Your task to perform on an android device: open chrome and create a bookmark for the current page Image 0: 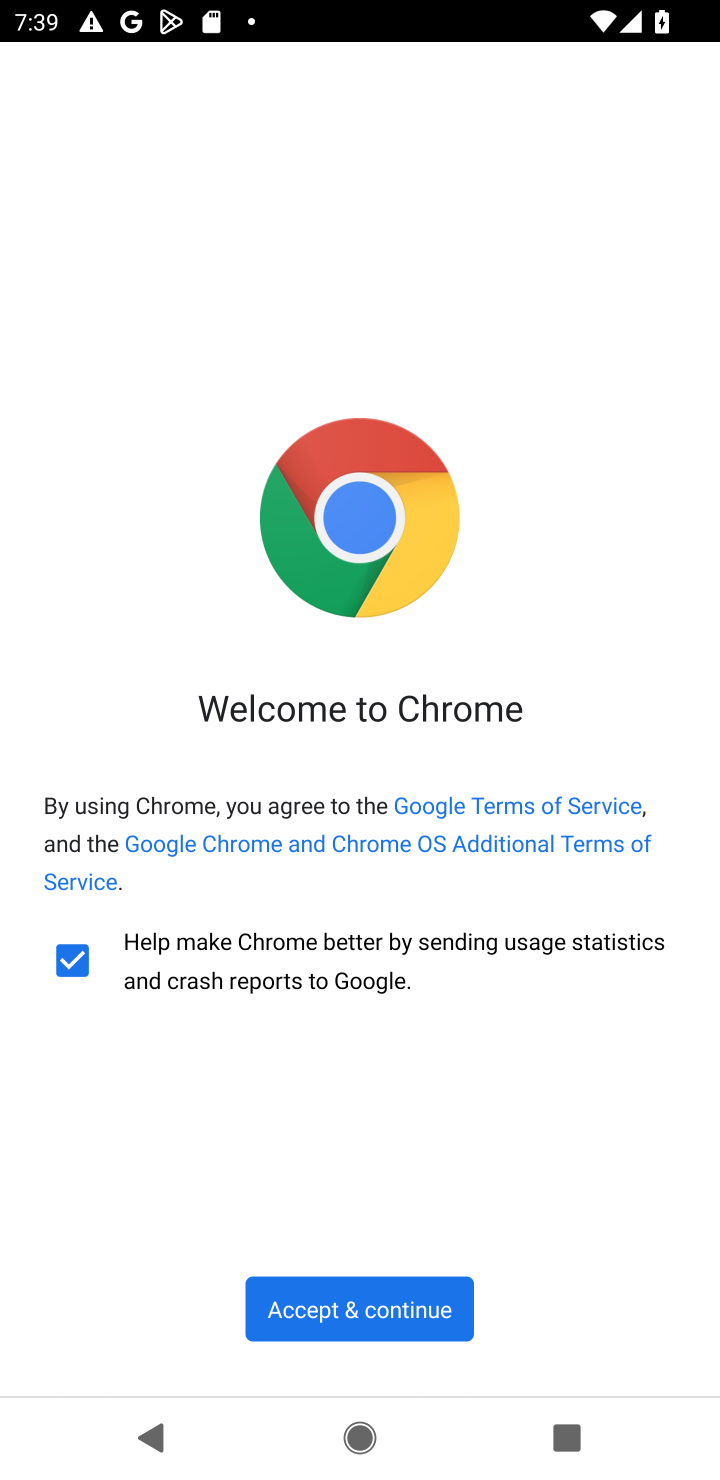
Step 0: click (325, 1328)
Your task to perform on an android device: open chrome and create a bookmark for the current page Image 1: 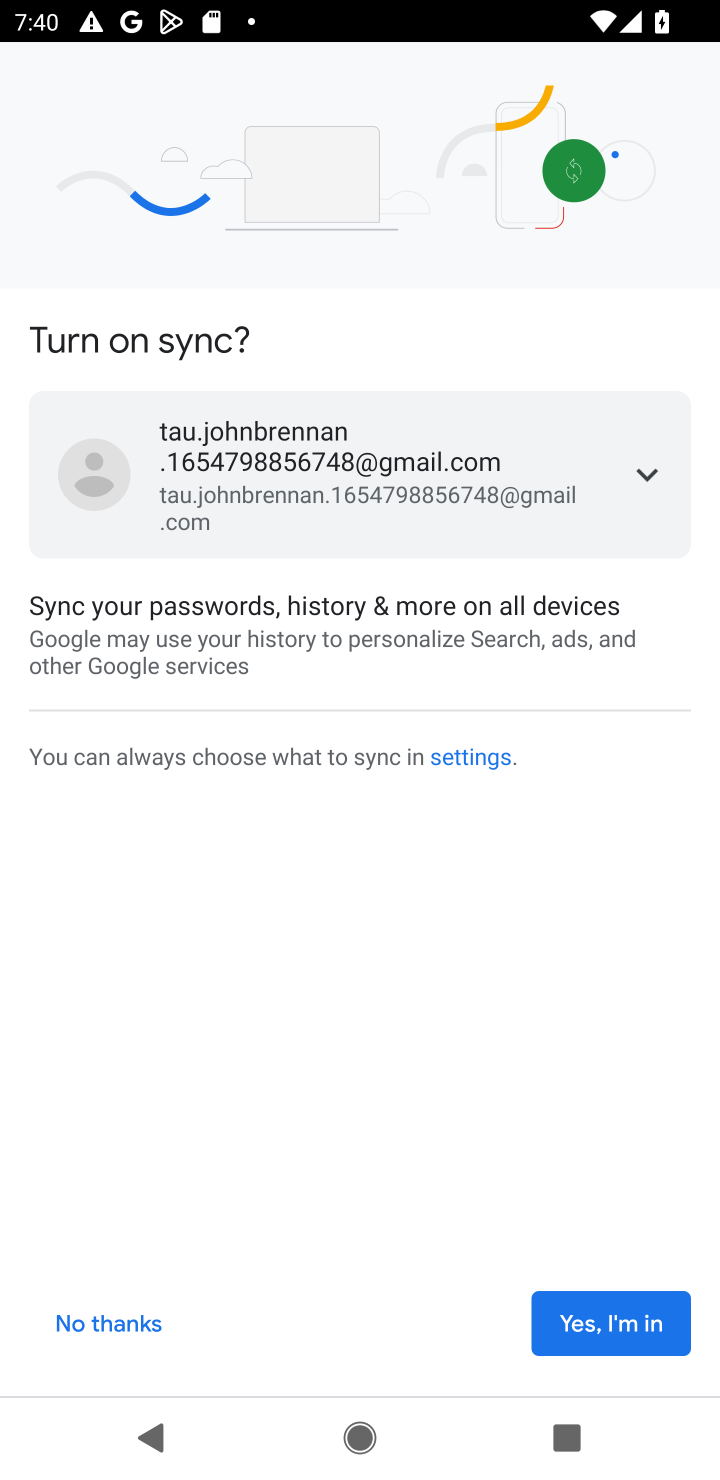
Step 1: click (612, 1329)
Your task to perform on an android device: open chrome and create a bookmark for the current page Image 2: 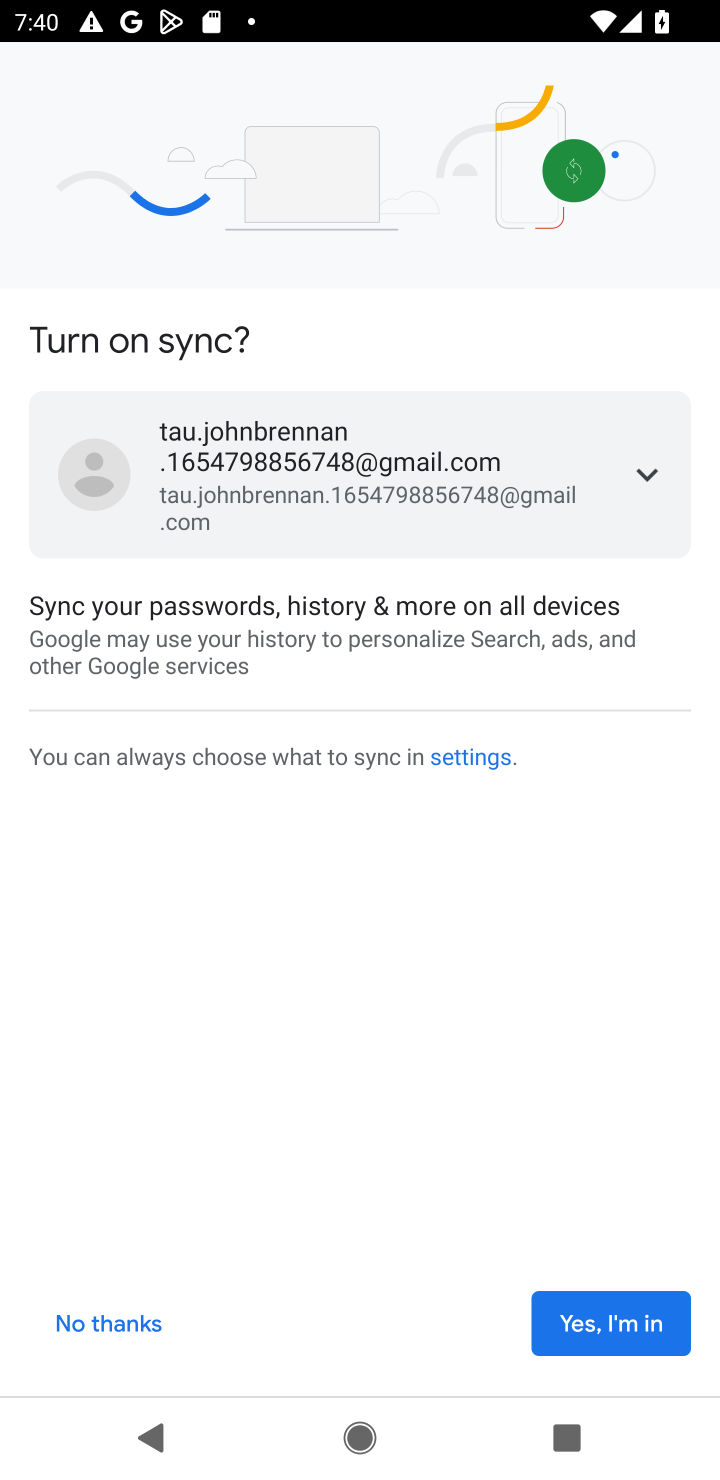
Step 2: click (614, 1331)
Your task to perform on an android device: open chrome and create a bookmark for the current page Image 3: 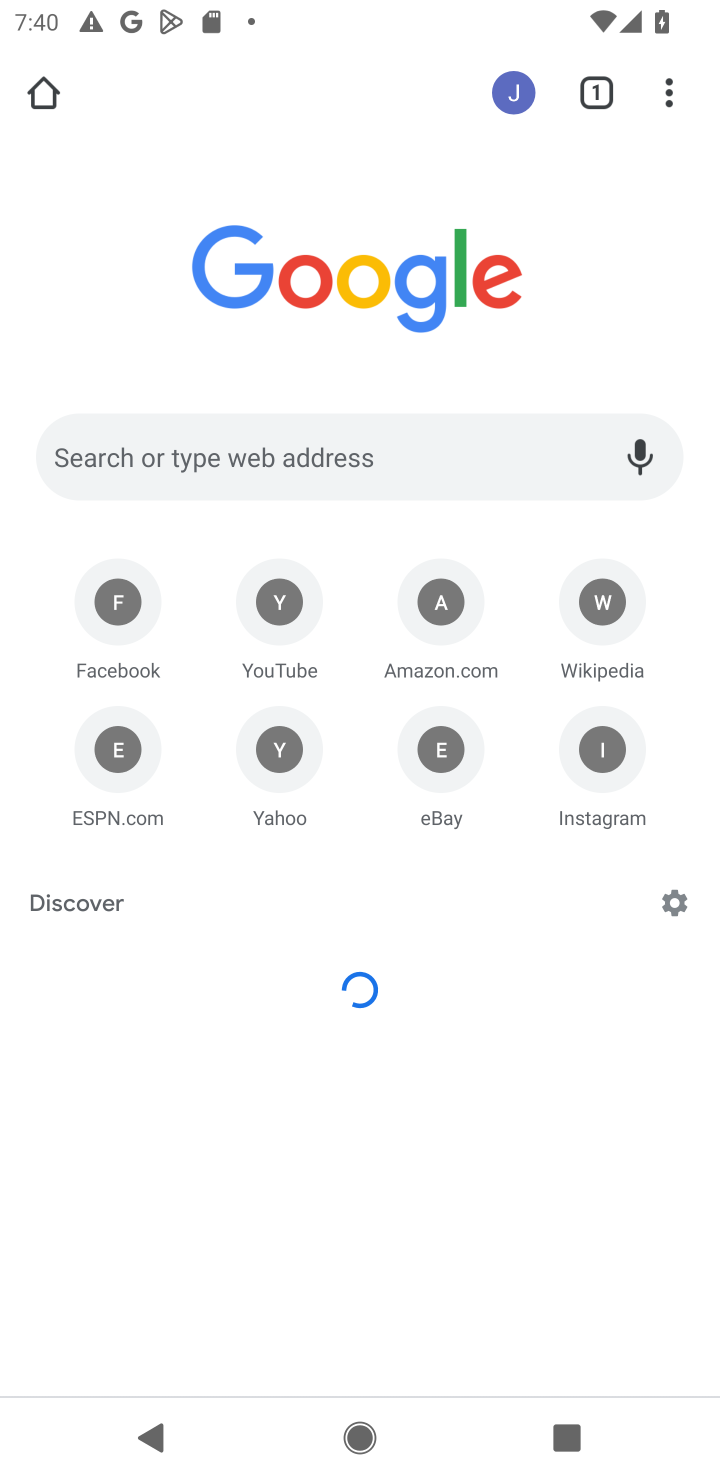
Step 3: click (674, 74)
Your task to perform on an android device: open chrome and create a bookmark for the current page Image 4: 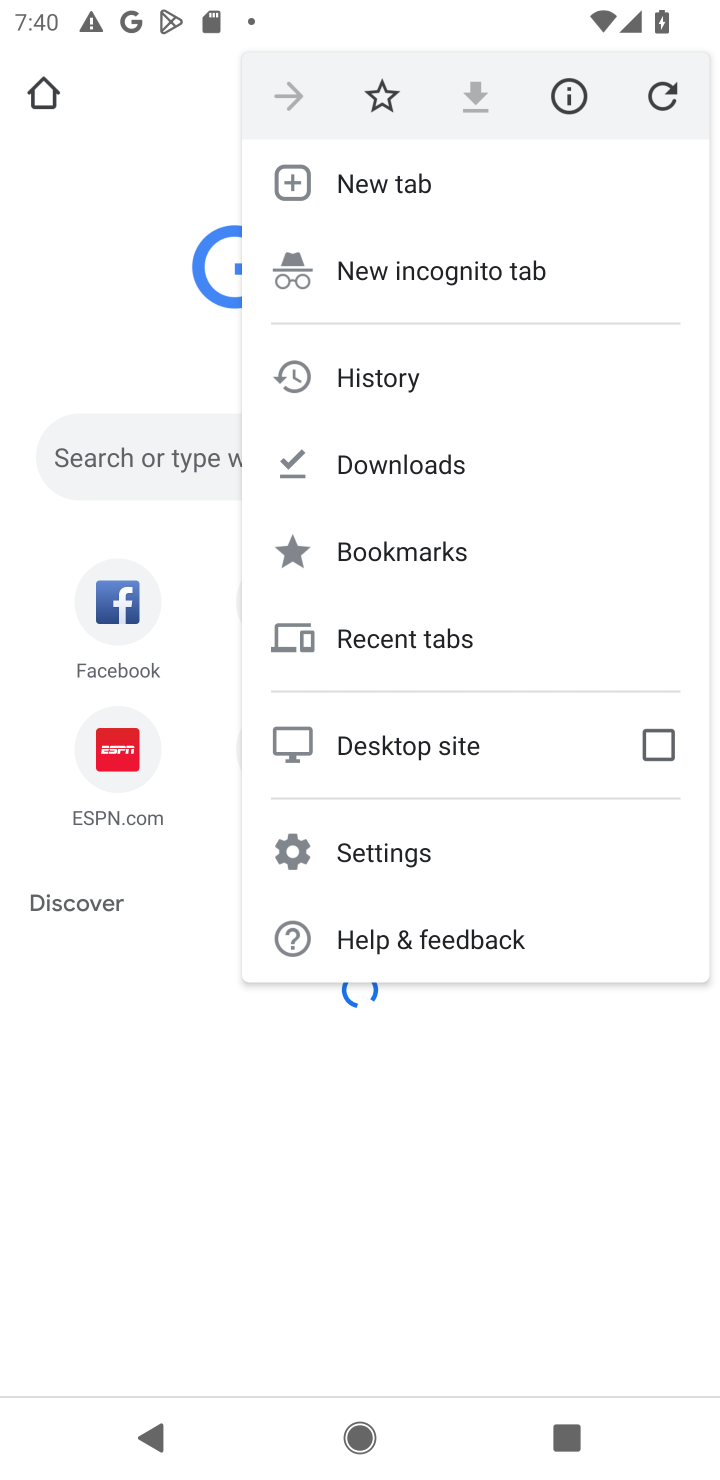
Step 4: click (374, 100)
Your task to perform on an android device: open chrome and create a bookmark for the current page Image 5: 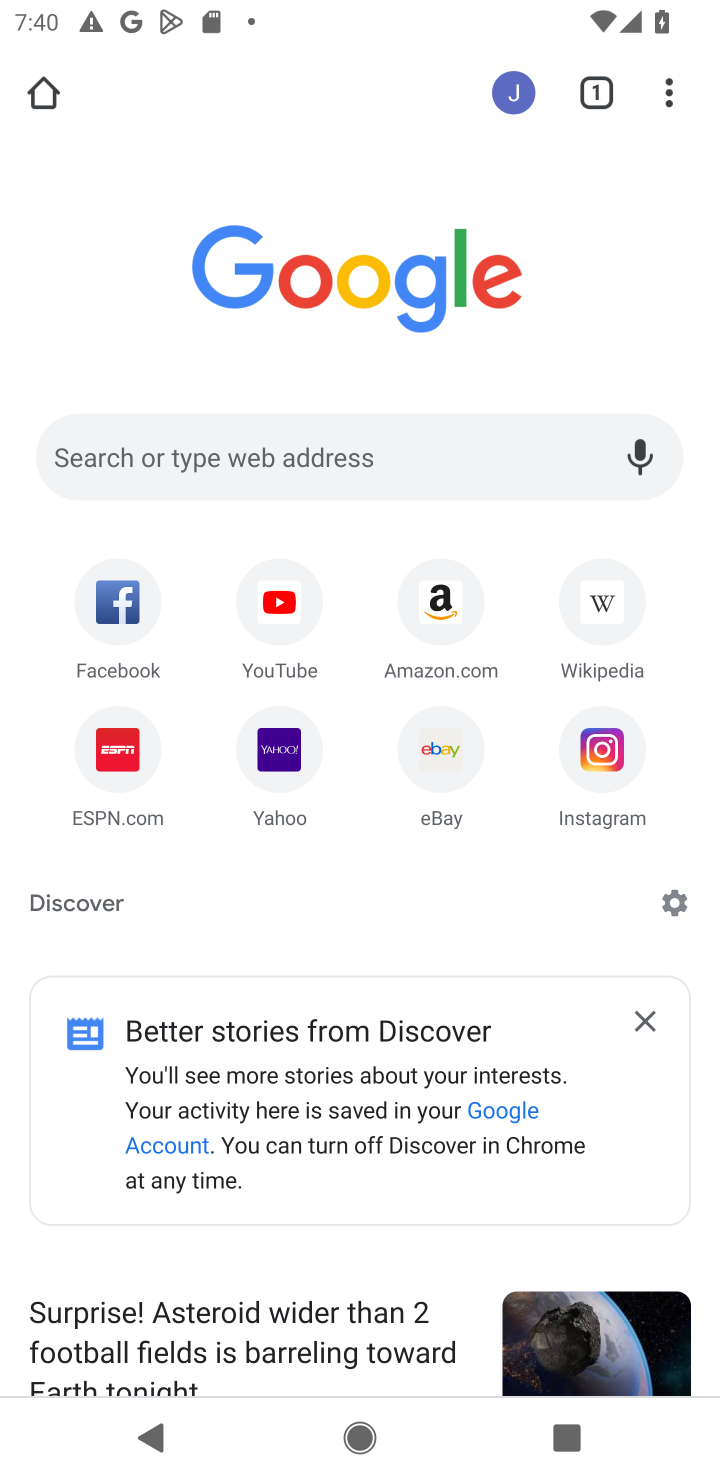
Step 5: task complete